Your task to perform on an android device: toggle sleep mode Image 0: 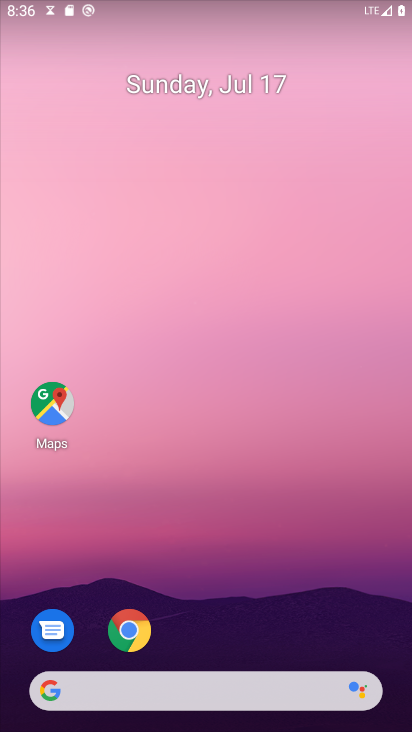
Step 0: drag from (203, 635) to (229, 63)
Your task to perform on an android device: toggle sleep mode Image 1: 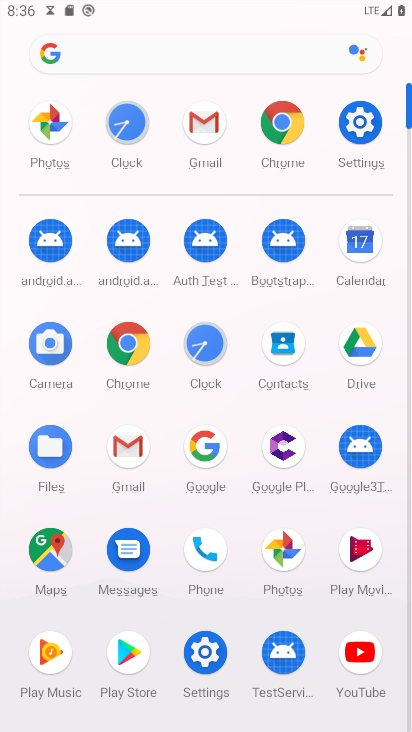
Step 1: click (365, 144)
Your task to perform on an android device: toggle sleep mode Image 2: 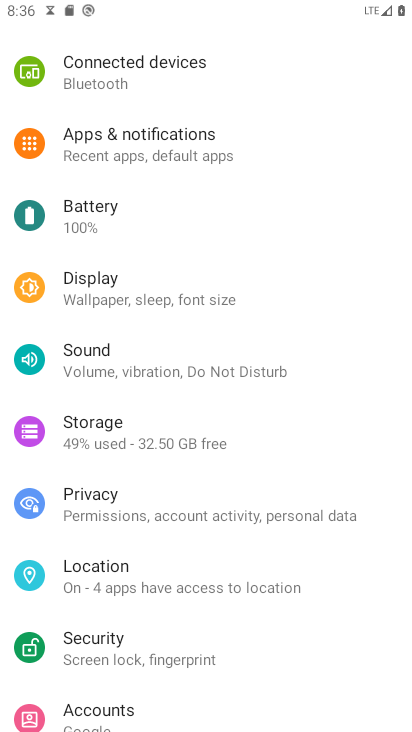
Step 2: drag from (184, 123) to (133, 729)
Your task to perform on an android device: toggle sleep mode Image 3: 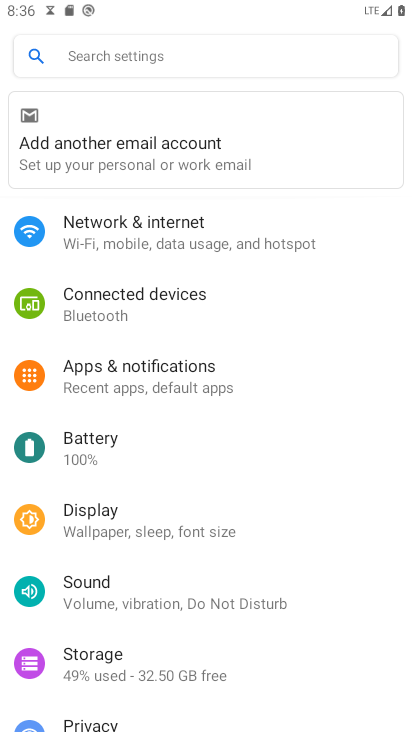
Step 3: click (159, 56)
Your task to perform on an android device: toggle sleep mode Image 4: 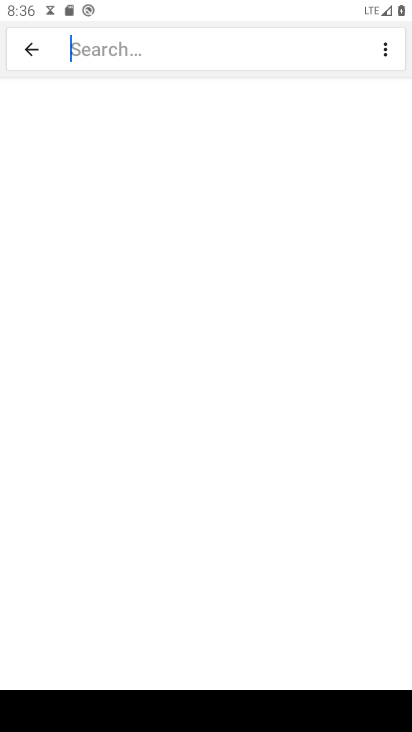
Step 4: type "sleep mode"
Your task to perform on an android device: toggle sleep mode Image 5: 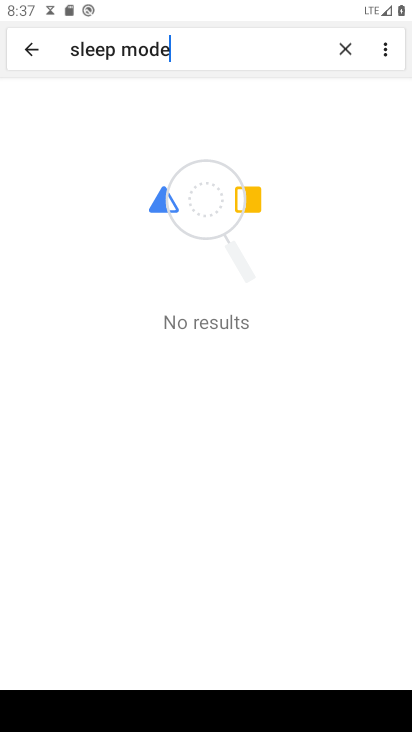
Step 5: task complete